Your task to perform on an android device: What is the capital of Spain? Image 0: 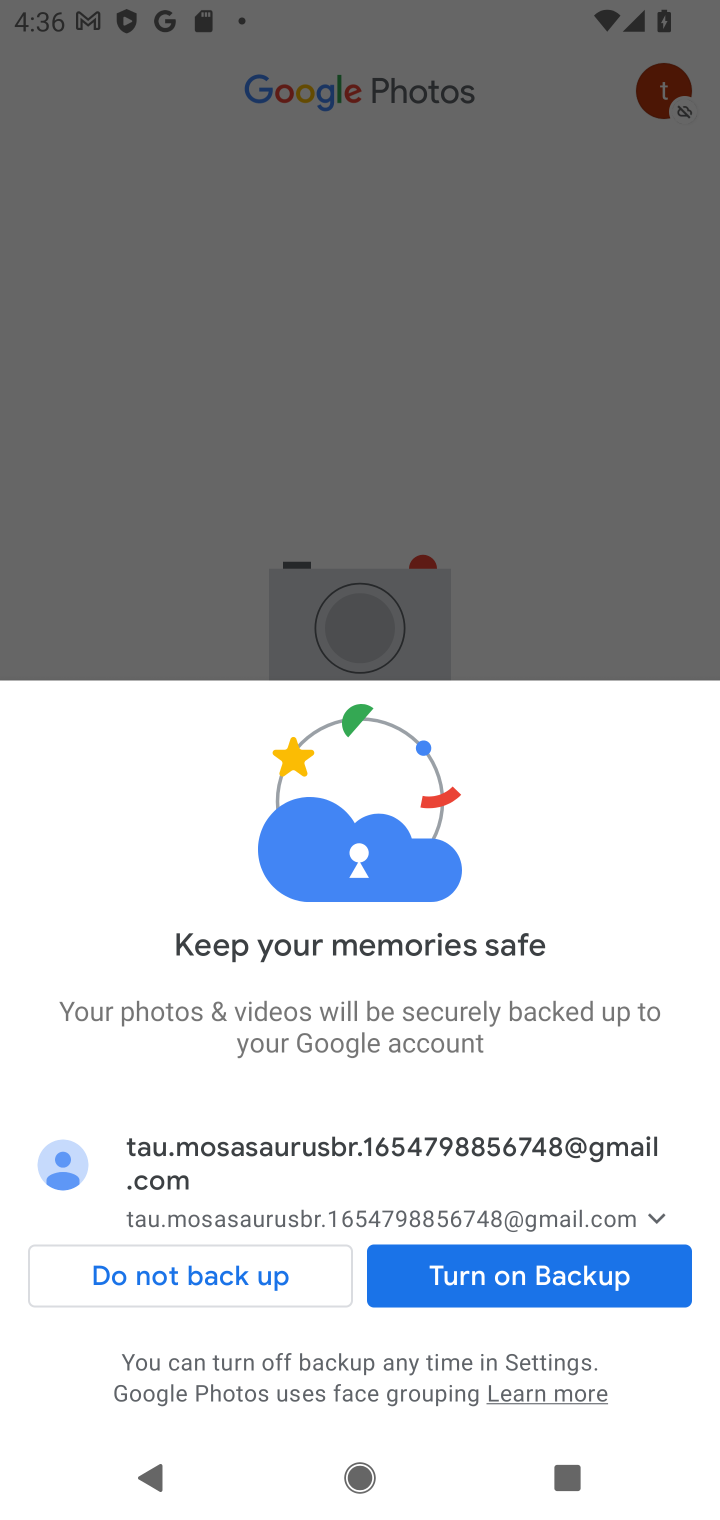
Step 0: press home button
Your task to perform on an android device: What is the capital of Spain? Image 1: 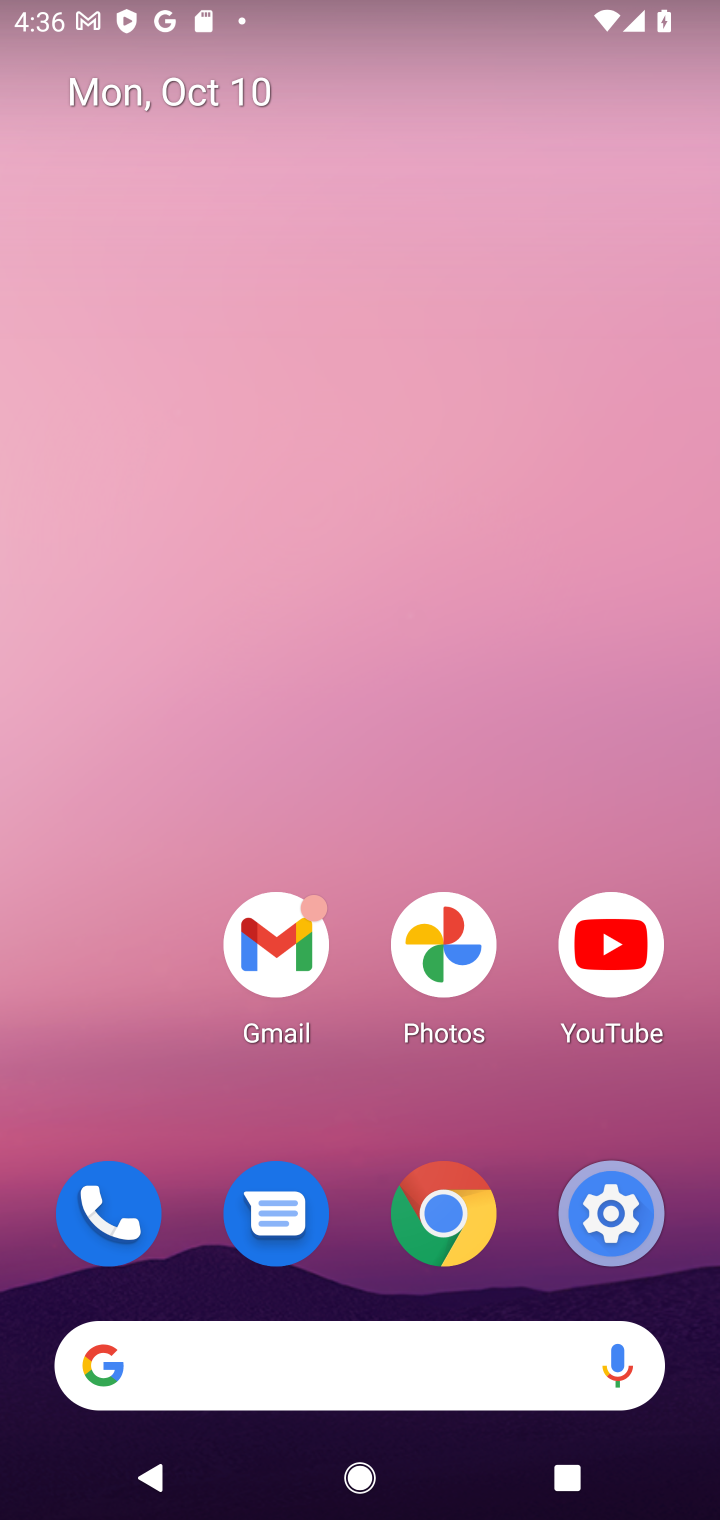
Step 1: click (406, 1368)
Your task to perform on an android device: What is the capital of Spain? Image 2: 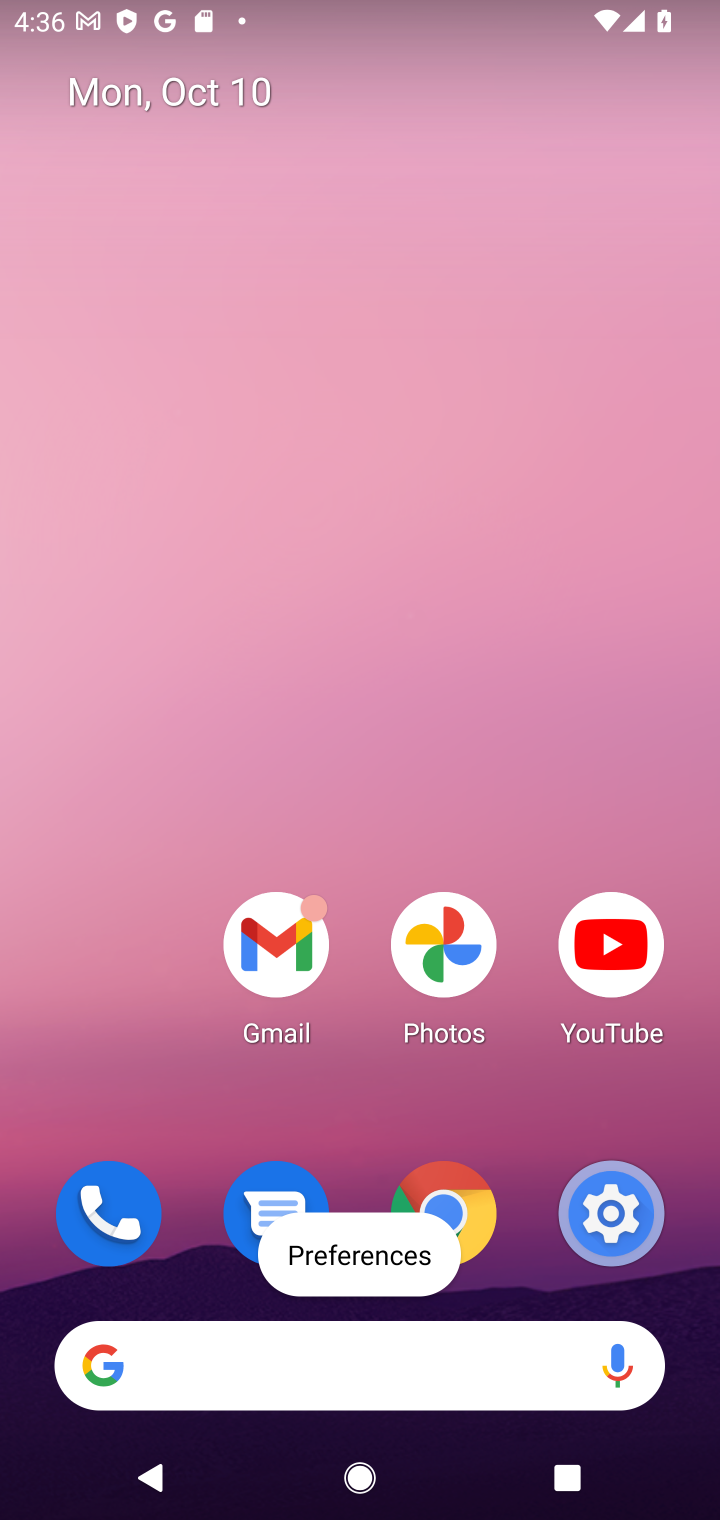
Step 2: click (395, 1376)
Your task to perform on an android device: What is the capital of Spain? Image 3: 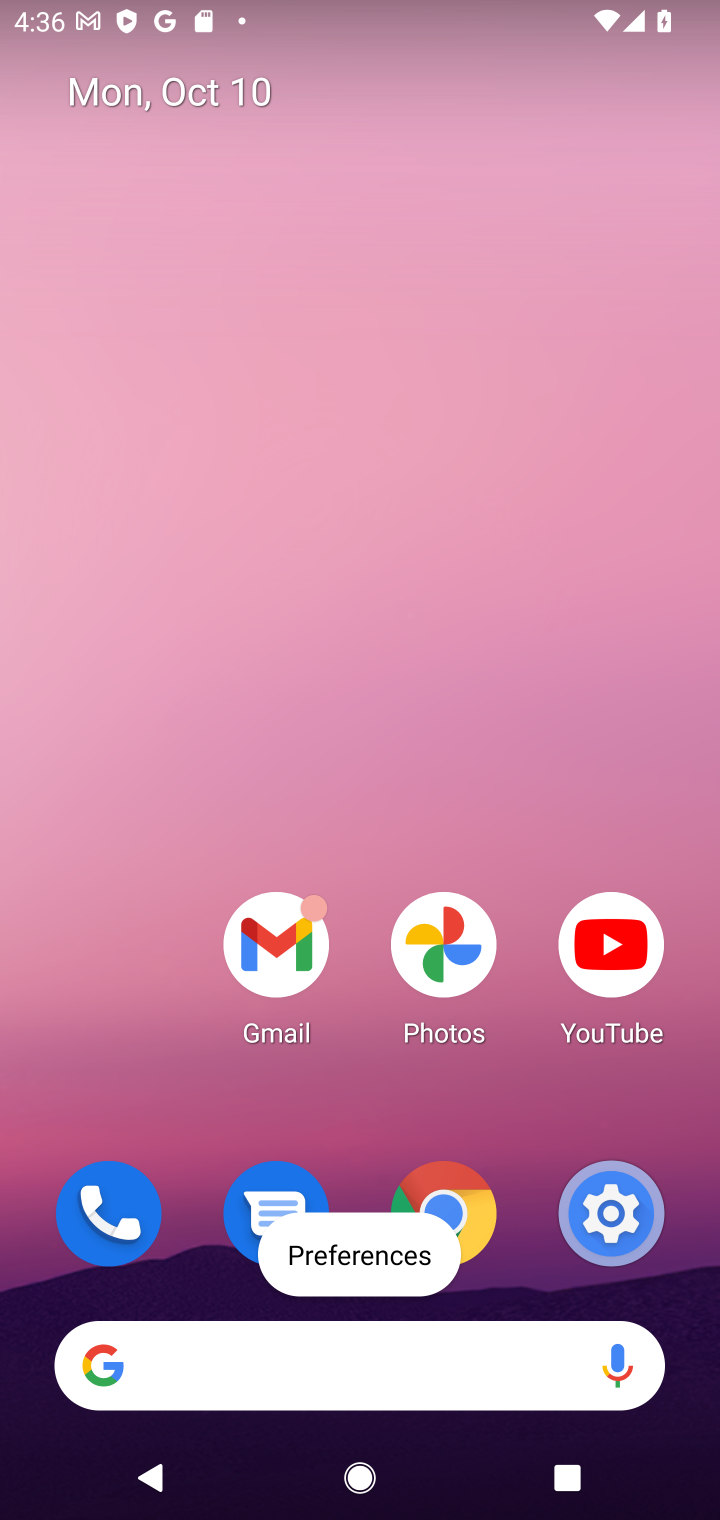
Step 3: click (381, 1381)
Your task to perform on an android device: What is the capital of Spain? Image 4: 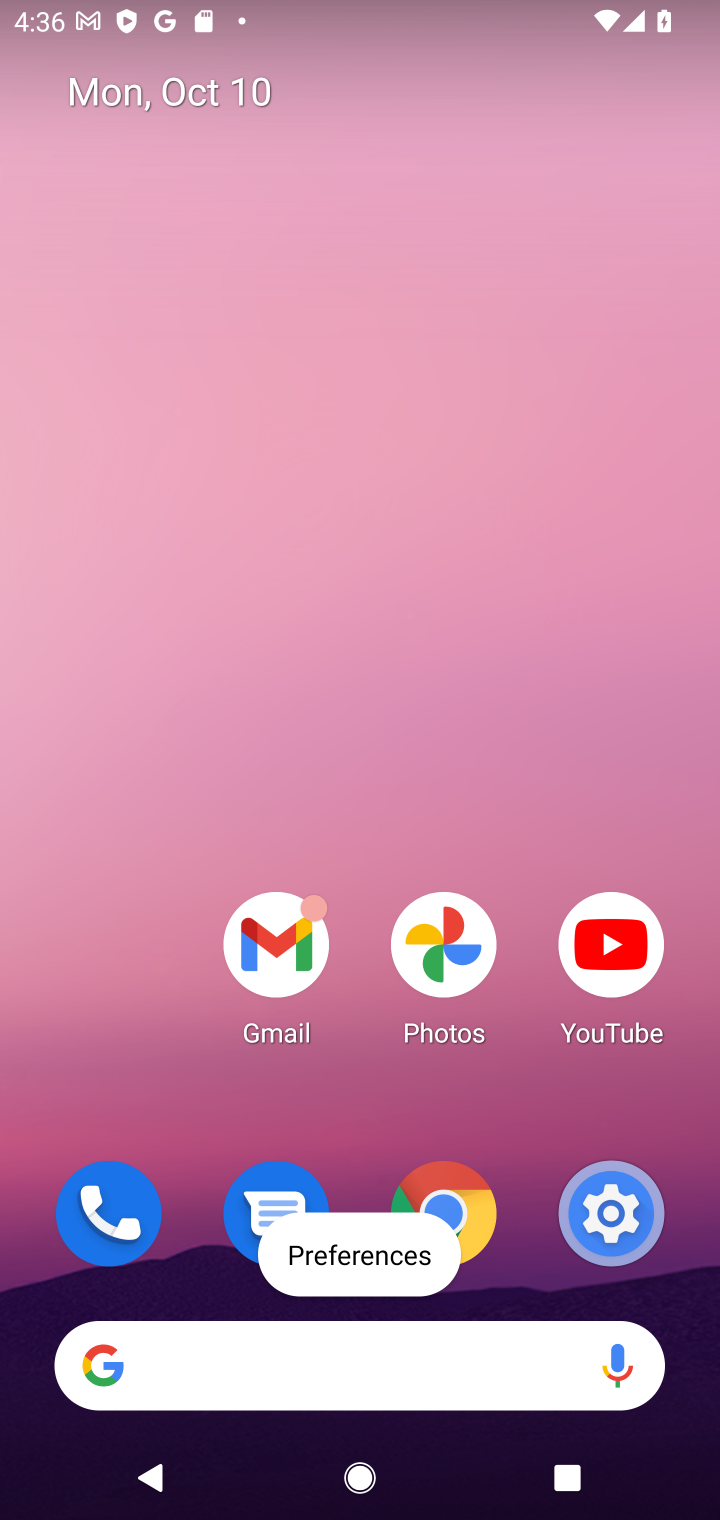
Step 4: click (313, 1370)
Your task to perform on an android device: What is the capital of Spain? Image 5: 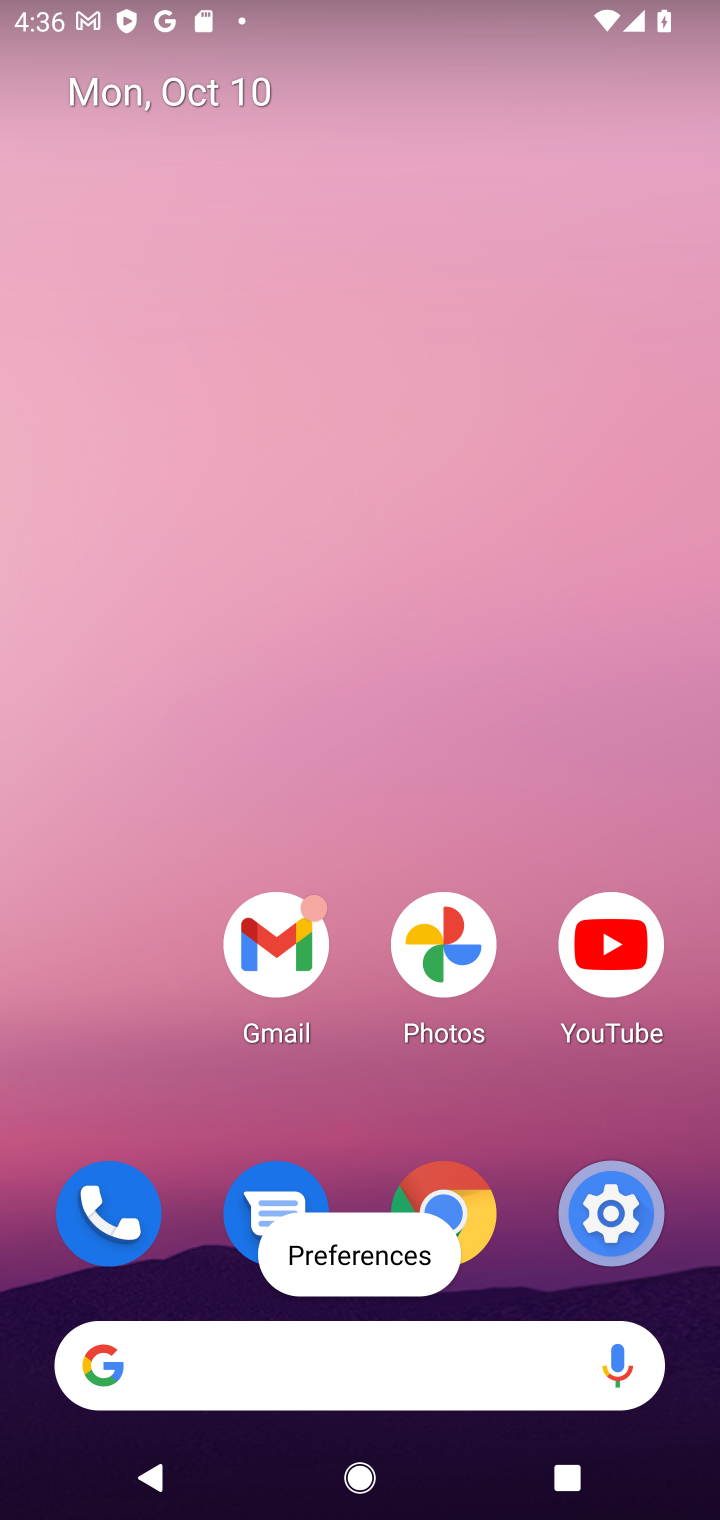
Step 5: click (245, 1365)
Your task to perform on an android device: What is the capital of Spain? Image 6: 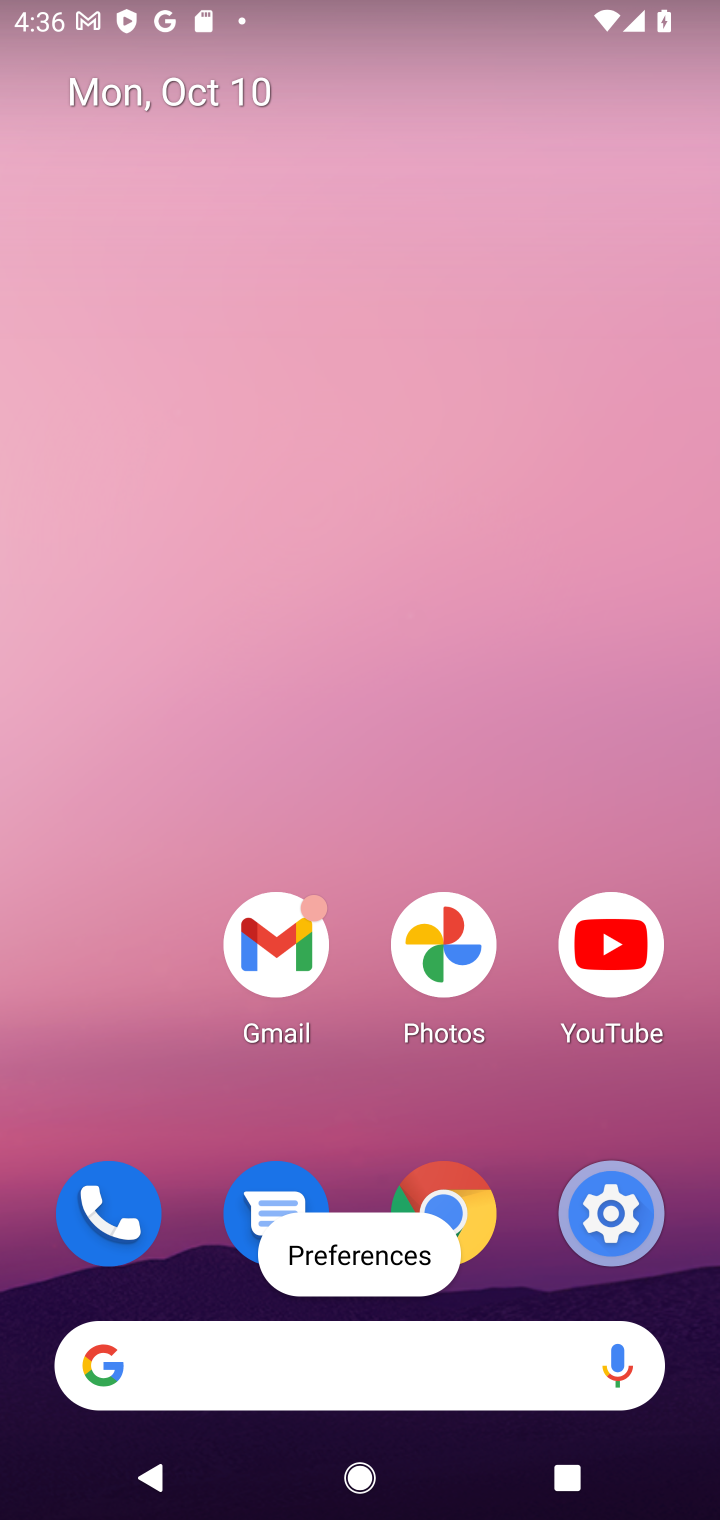
Step 6: click (297, 1383)
Your task to perform on an android device: What is the capital of Spain? Image 7: 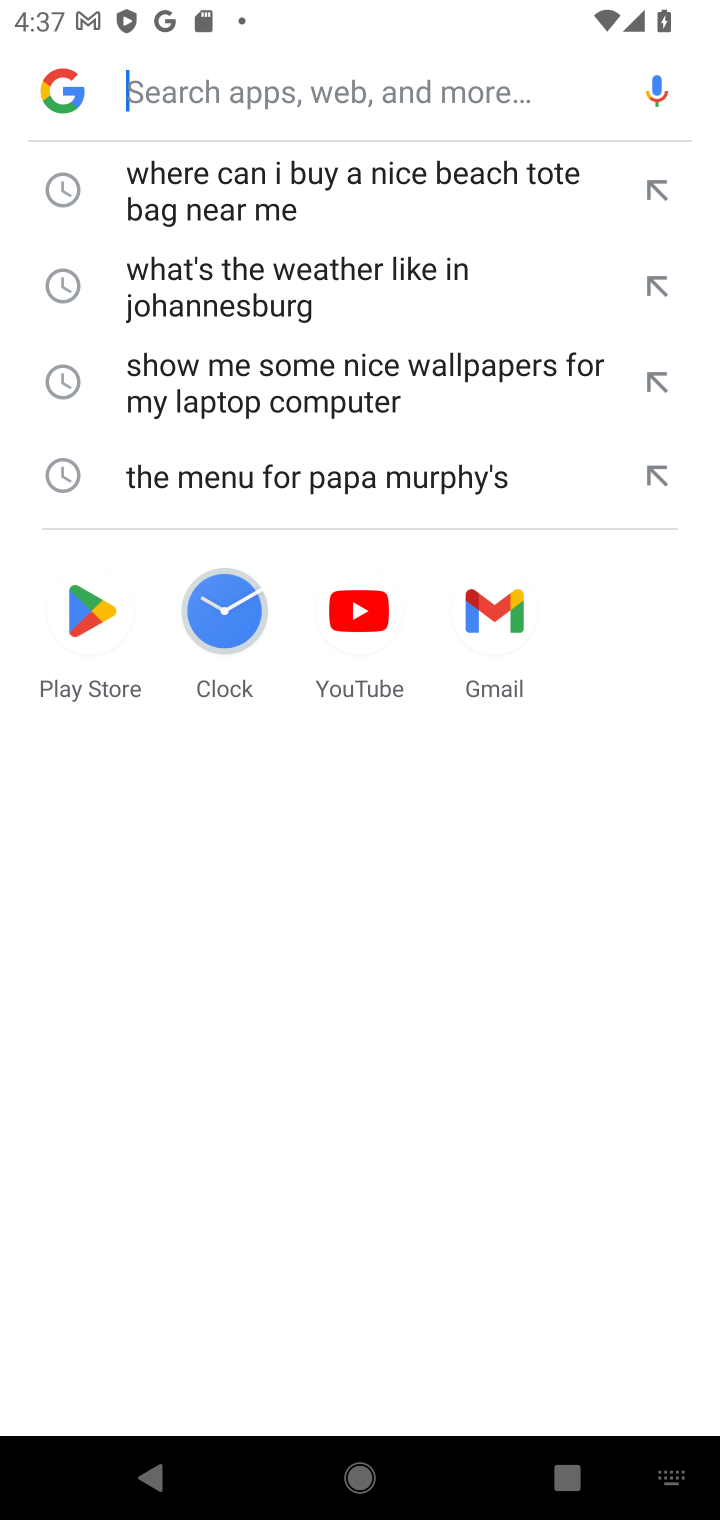
Step 7: type "capital of Spain"
Your task to perform on an android device: What is the capital of Spain? Image 8: 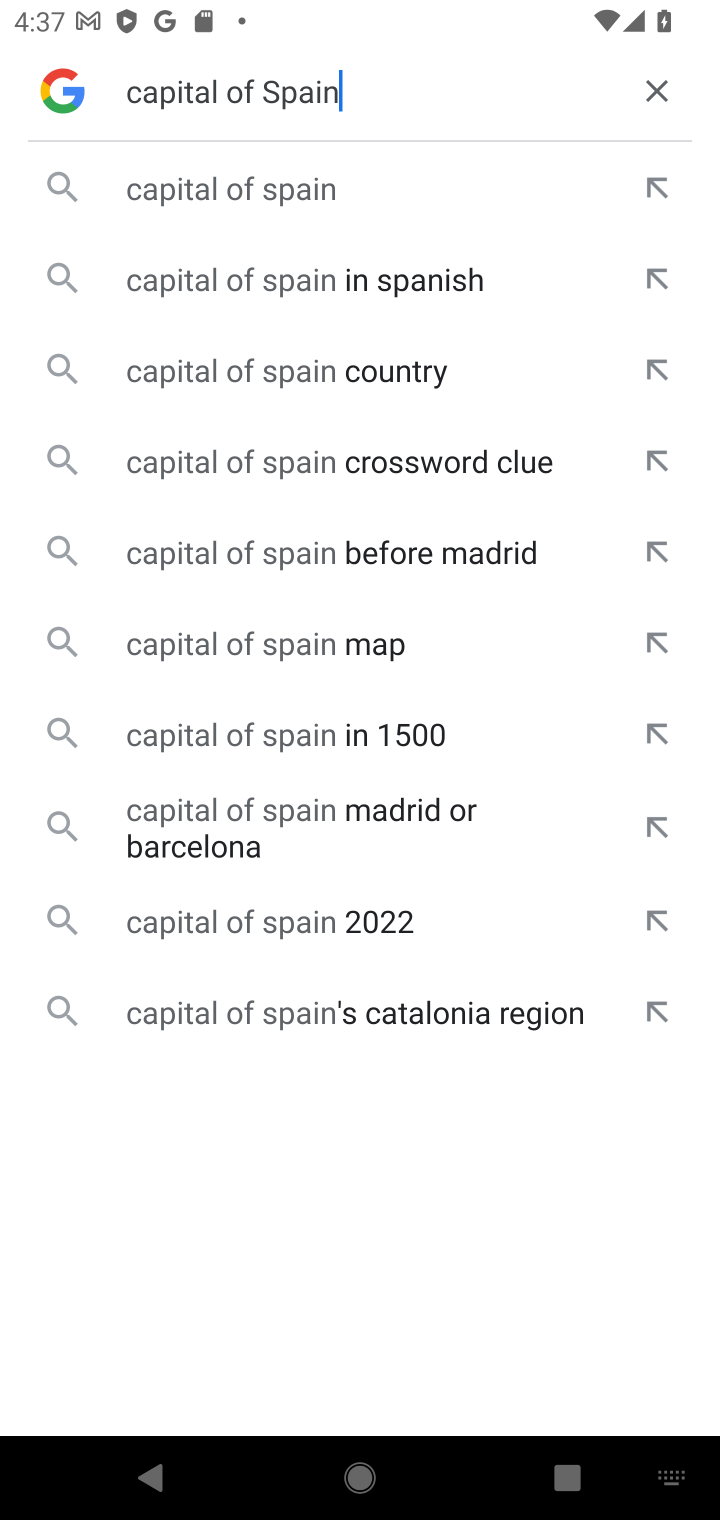
Step 8: click (253, 209)
Your task to perform on an android device: What is the capital of Spain? Image 9: 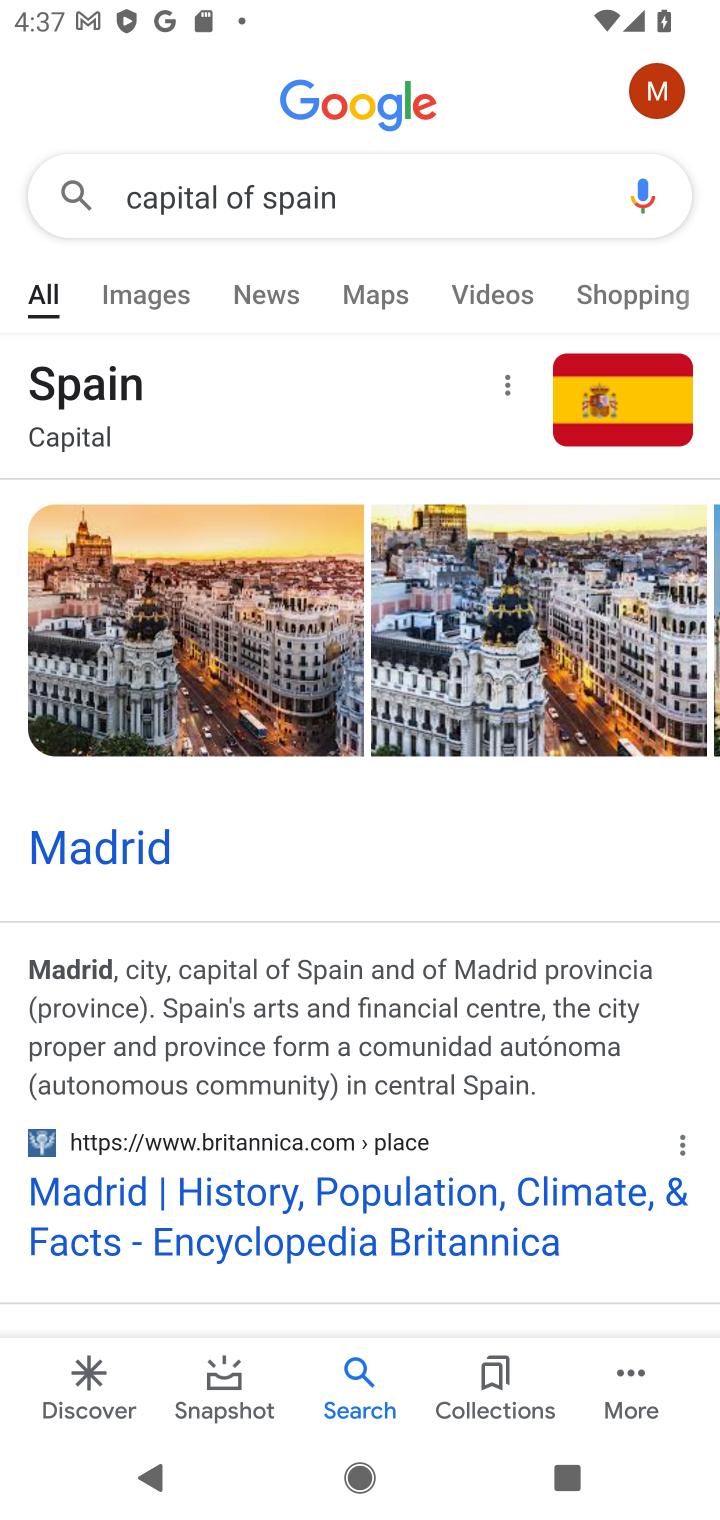
Step 9: task complete